Your task to perform on an android device: Go to sound settings Image 0: 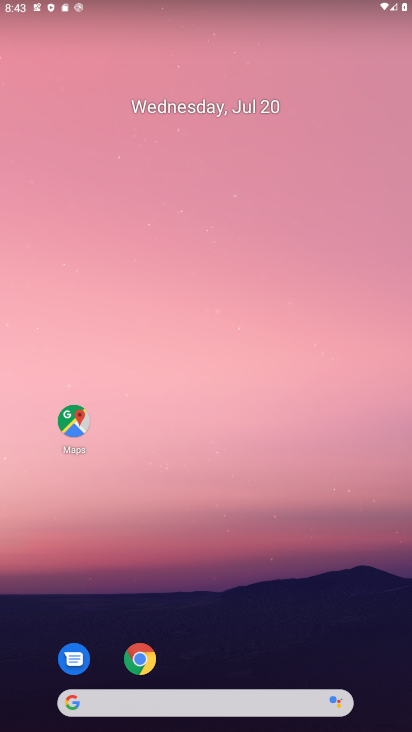
Step 0: drag from (259, 648) to (258, 1)
Your task to perform on an android device: Go to sound settings Image 1: 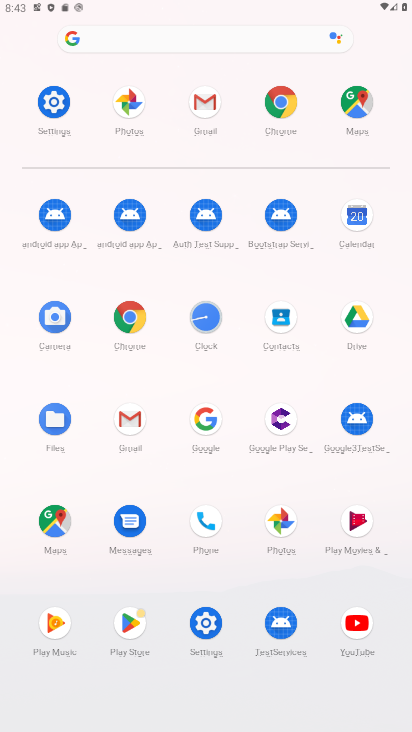
Step 1: click (207, 613)
Your task to perform on an android device: Go to sound settings Image 2: 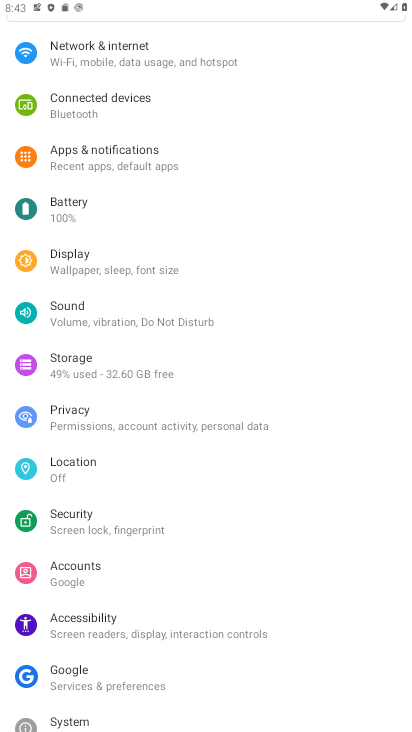
Step 2: click (60, 305)
Your task to perform on an android device: Go to sound settings Image 3: 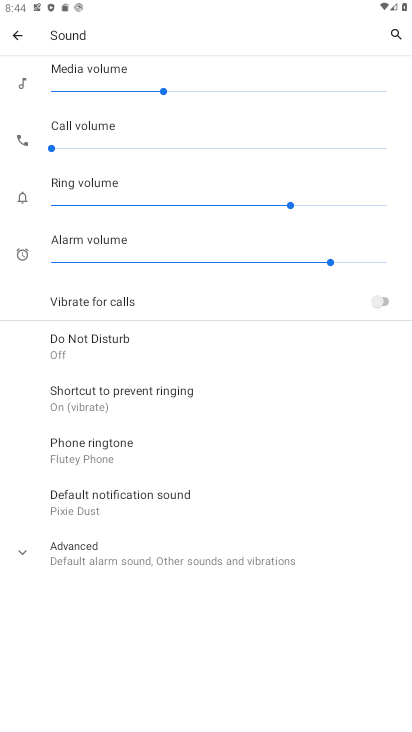
Step 3: task complete